Your task to perform on an android device: set an alarm Image 0: 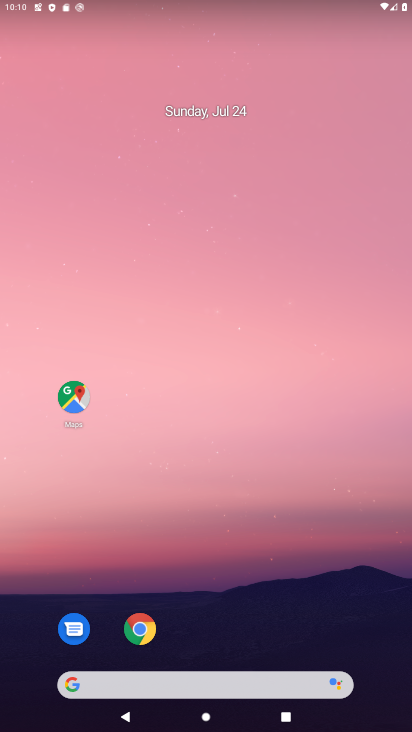
Step 0: drag from (183, 599) to (258, 201)
Your task to perform on an android device: set an alarm Image 1: 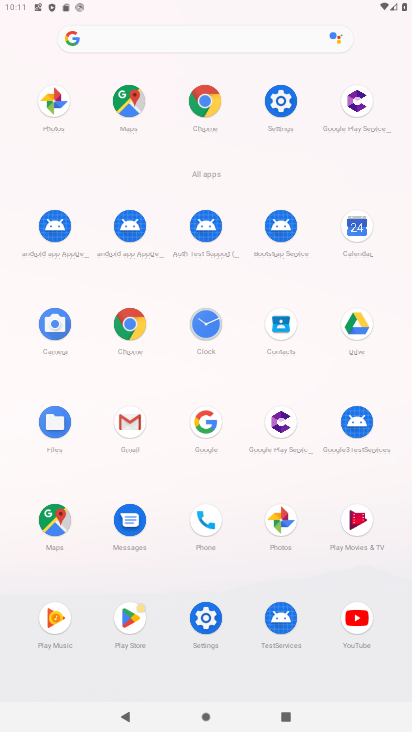
Step 1: click (204, 325)
Your task to perform on an android device: set an alarm Image 2: 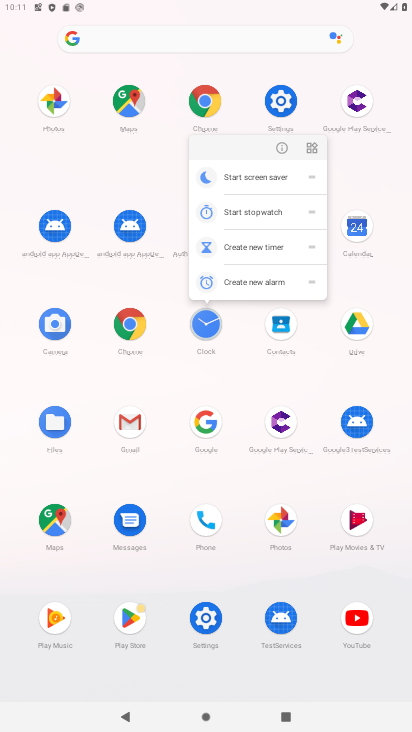
Step 2: click (280, 151)
Your task to perform on an android device: set an alarm Image 3: 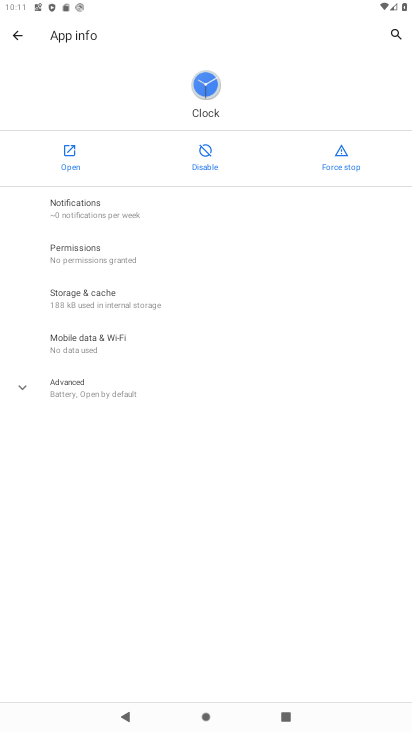
Step 3: click (65, 151)
Your task to perform on an android device: set an alarm Image 4: 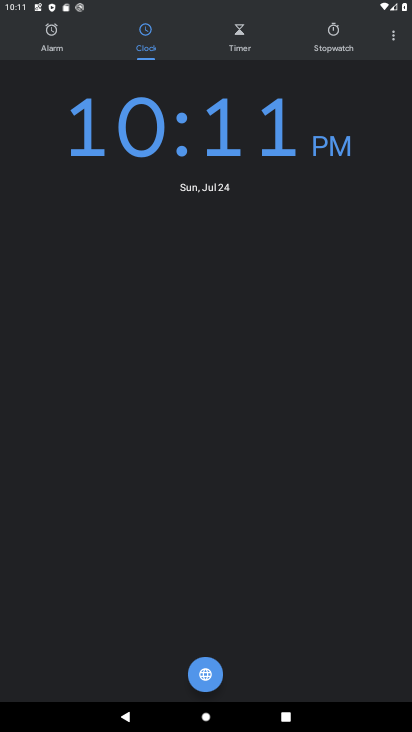
Step 4: click (49, 42)
Your task to perform on an android device: set an alarm Image 5: 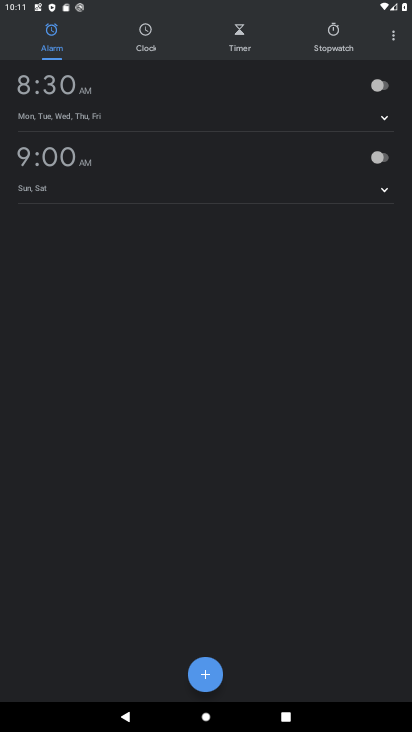
Step 5: drag from (172, 610) to (250, 275)
Your task to perform on an android device: set an alarm Image 6: 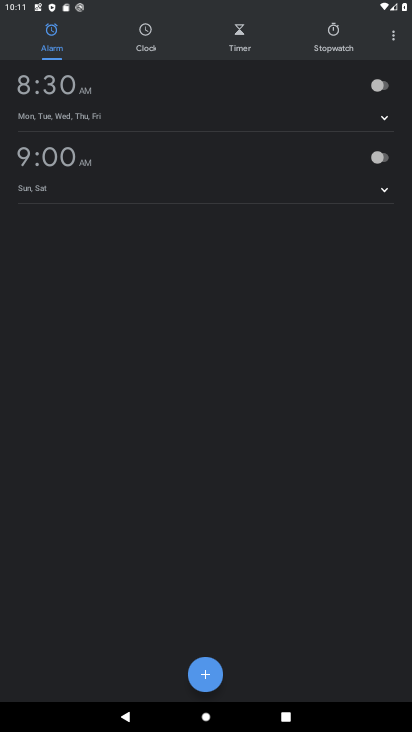
Step 6: press home button
Your task to perform on an android device: set an alarm Image 7: 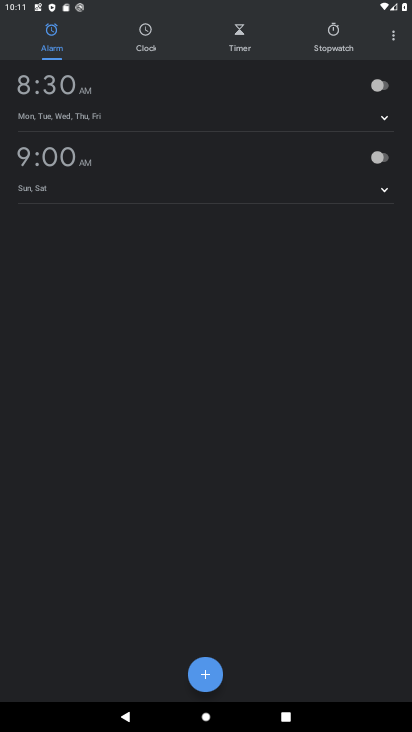
Step 7: press home button
Your task to perform on an android device: set an alarm Image 8: 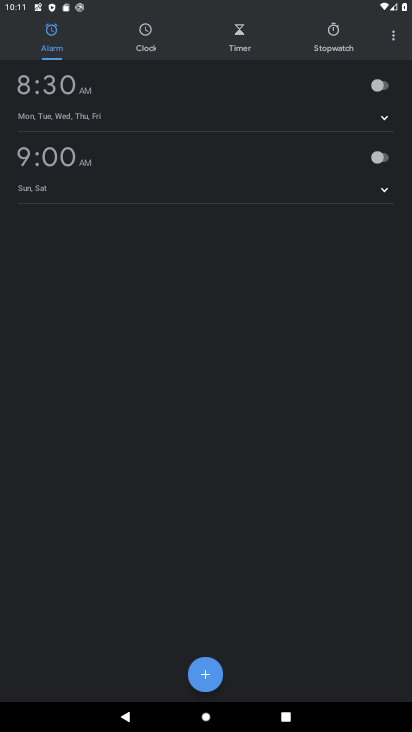
Step 8: click (239, 261)
Your task to perform on an android device: set an alarm Image 9: 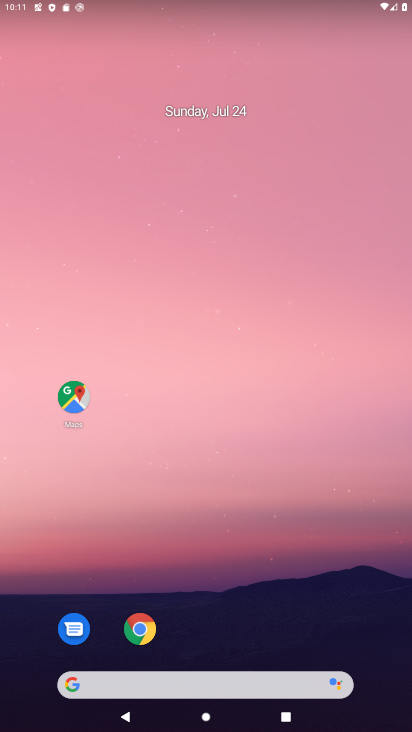
Step 9: drag from (157, 659) to (212, 56)
Your task to perform on an android device: set an alarm Image 10: 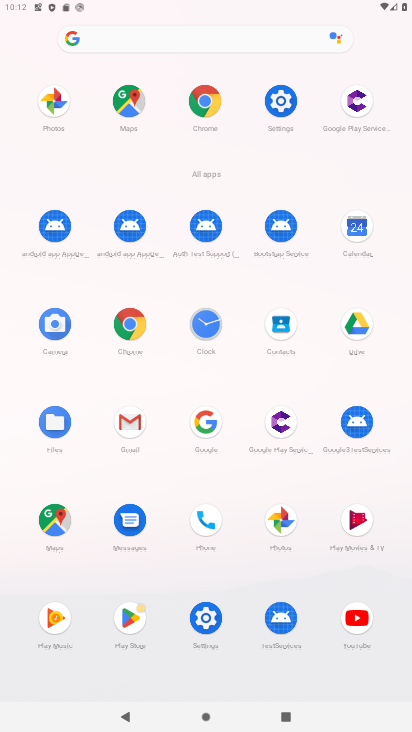
Step 10: click (199, 322)
Your task to perform on an android device: set an alarm Image 11: 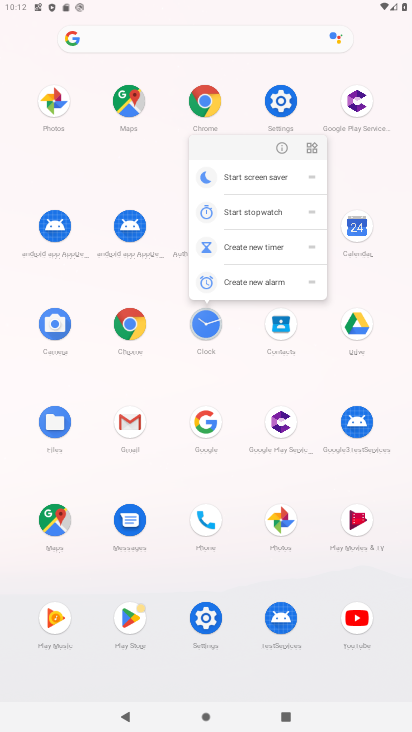
Step 11: click (280, 151)
Your task to perform on an android device: set an alarm Image 12: 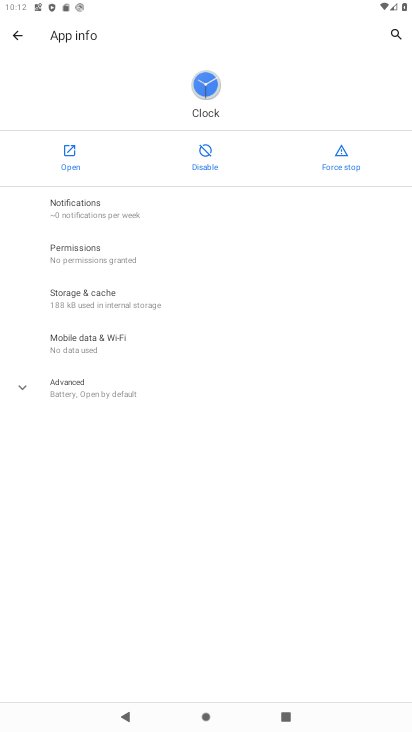
Step 12: click (57, 164)
Your task to perform on an android device: set an alarm Image 13: 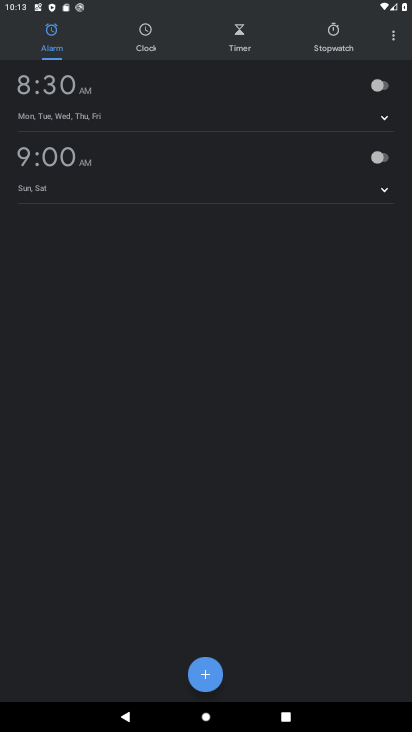
Step 13: click (371, 82)
Your task to perform on an android device: set an alarm Image 14: 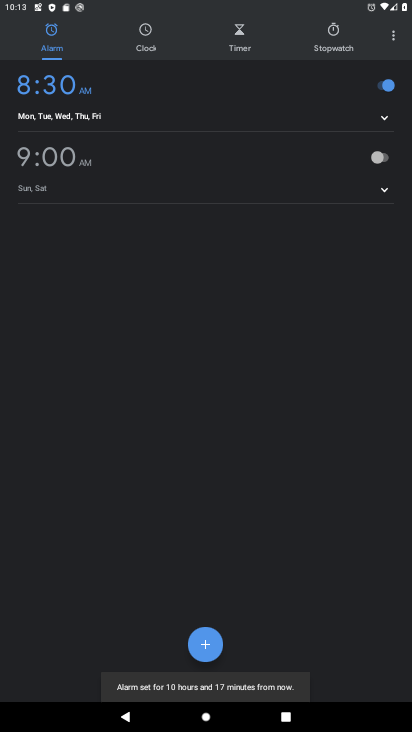
Step 14: task complete